Your task to perform on an android device: uninstall "File Manager" Image 0: 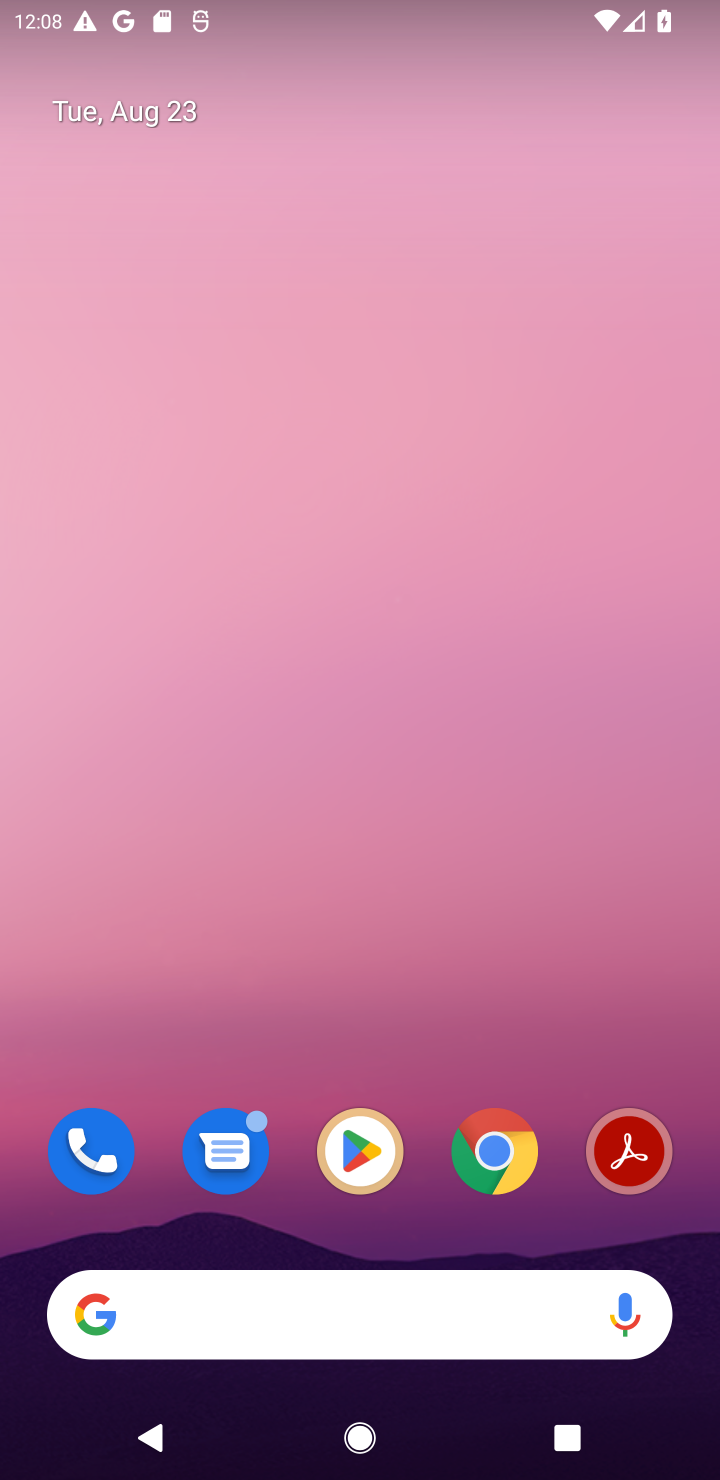
Step 0: click (365, 1143)
Your task to perform on an android device: uninstall "File Manager" Image 1: 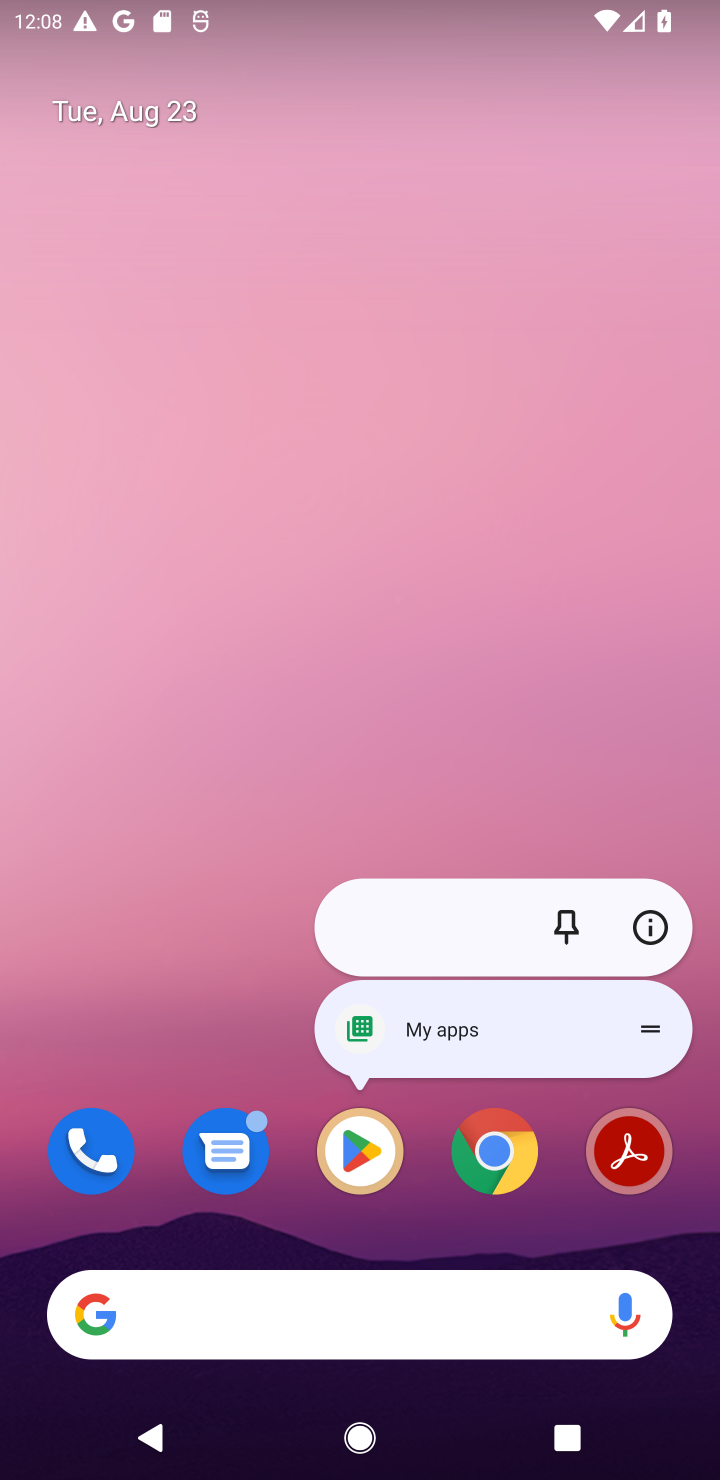
Step 1: click (365, 1143)
Your task to perform on an android device: uninstall "File Manager" Image 2: 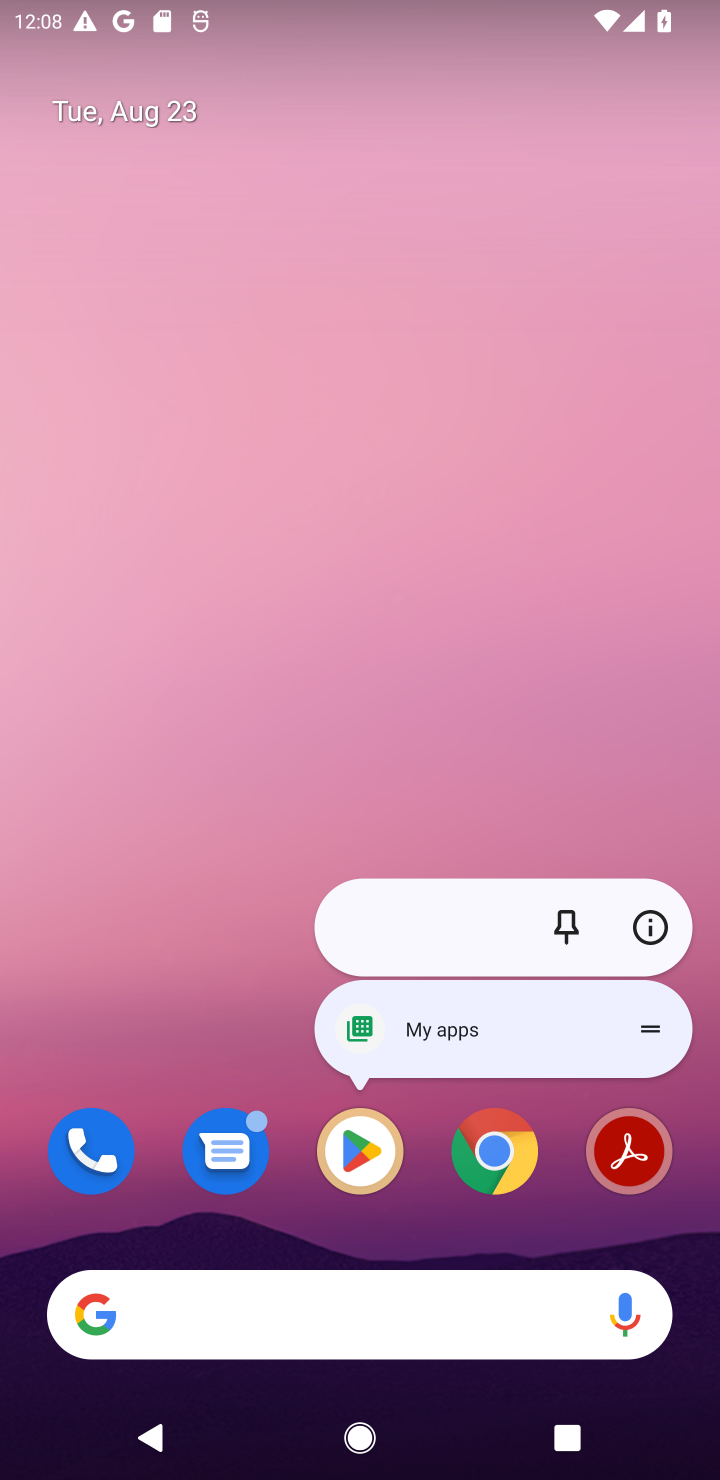
Step 2: click (359, 1168)
Your task to perform on an android device: uninstall "File Manager" Image 3: 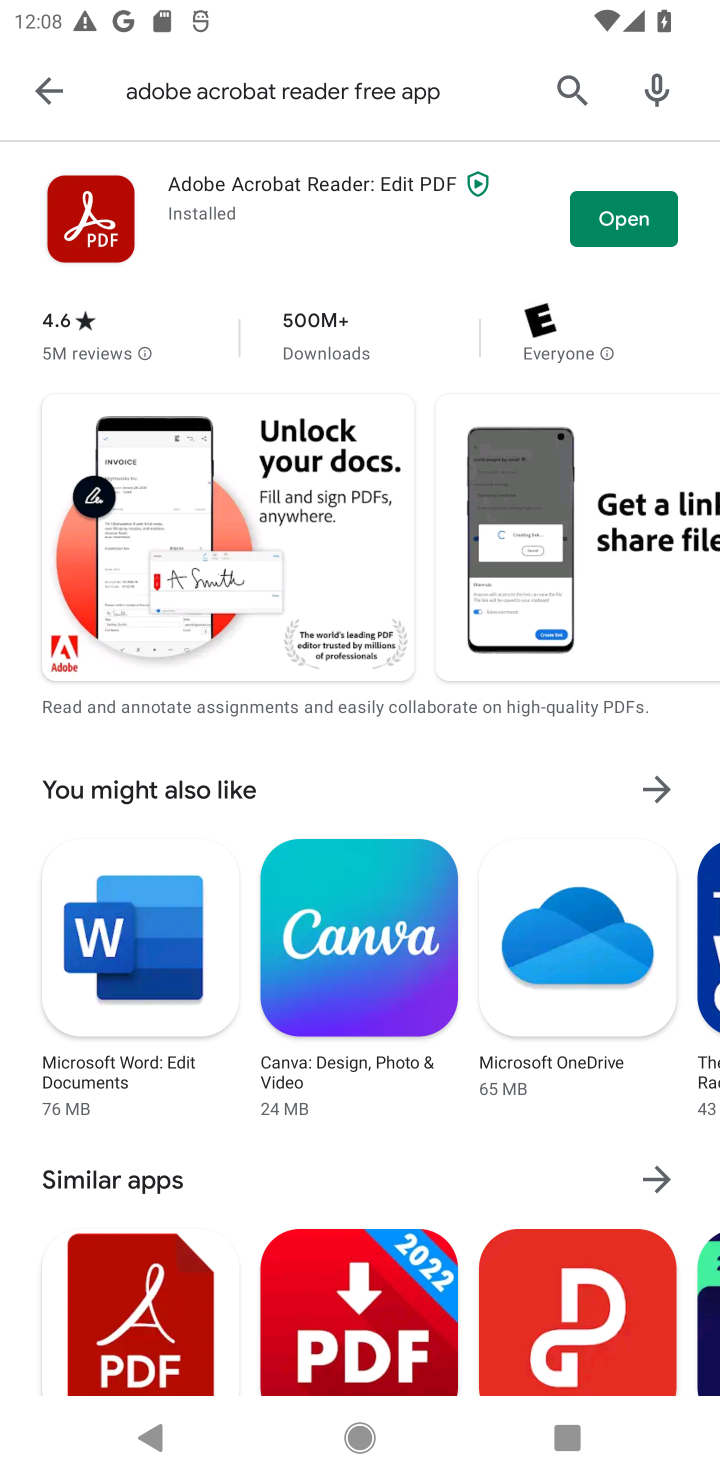
Step 3: click (577, 84)
Your task to perform on an android device: uninstall "File Manager" Image 4: 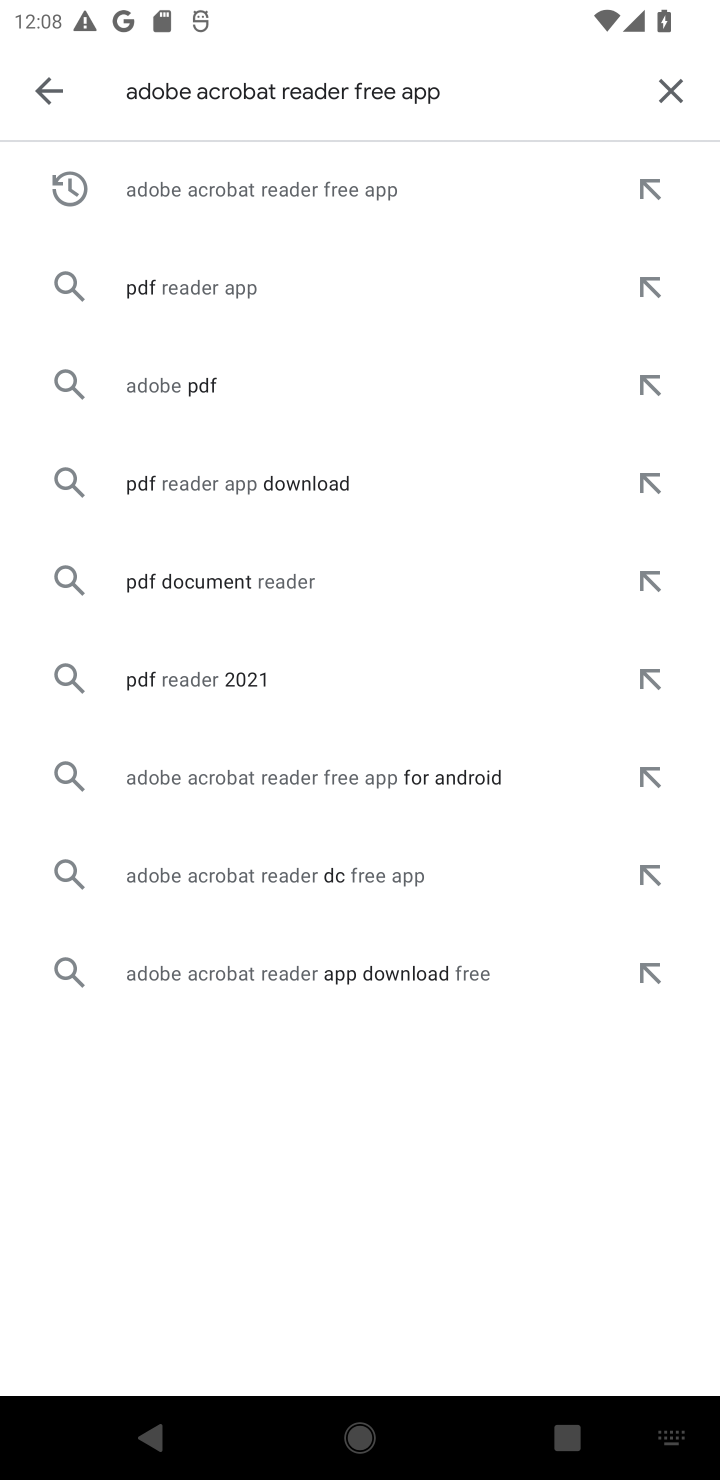
Step 4: click (675, 78)
Your task to perform on an android device: uninstall "File Manager" Image 5: 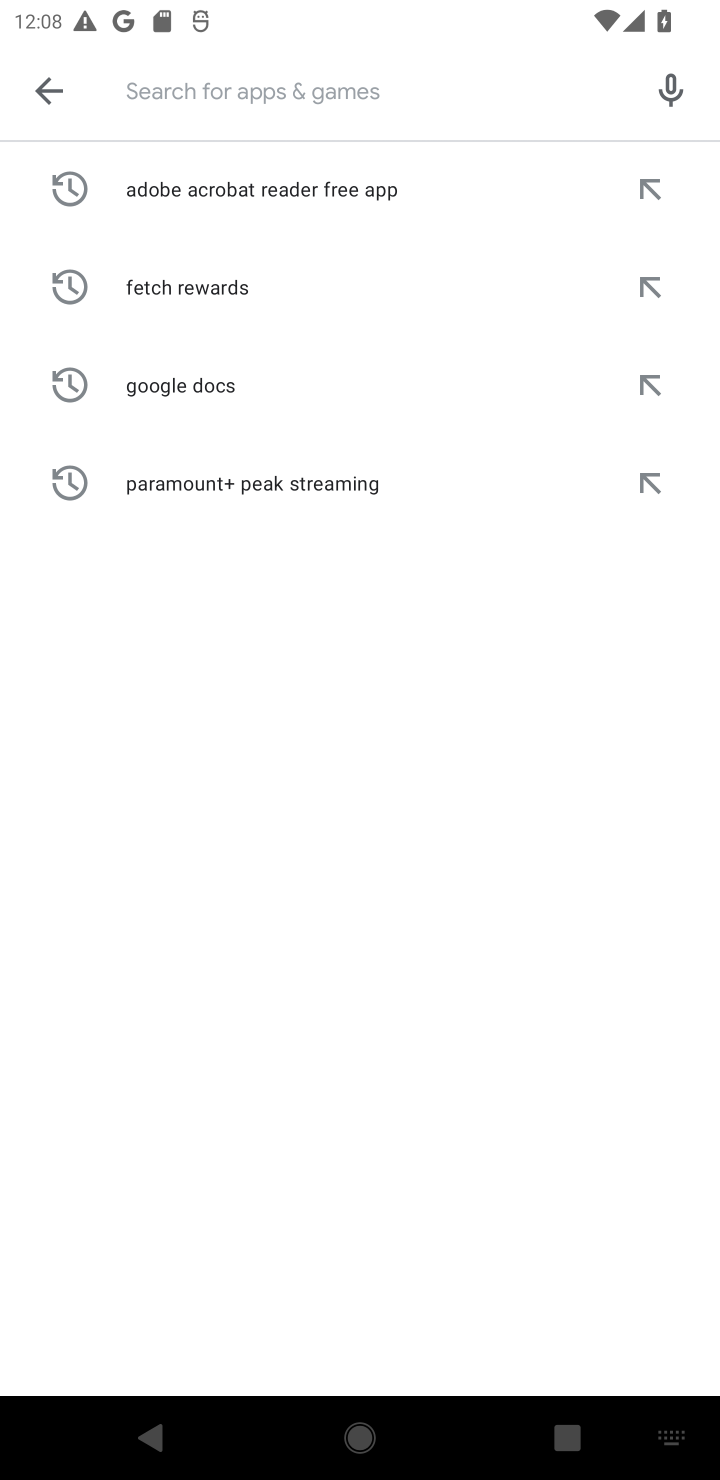
Step 5: type "File Manager"
Your task to perform on an android device: uninstall "File Manager" Image 6: 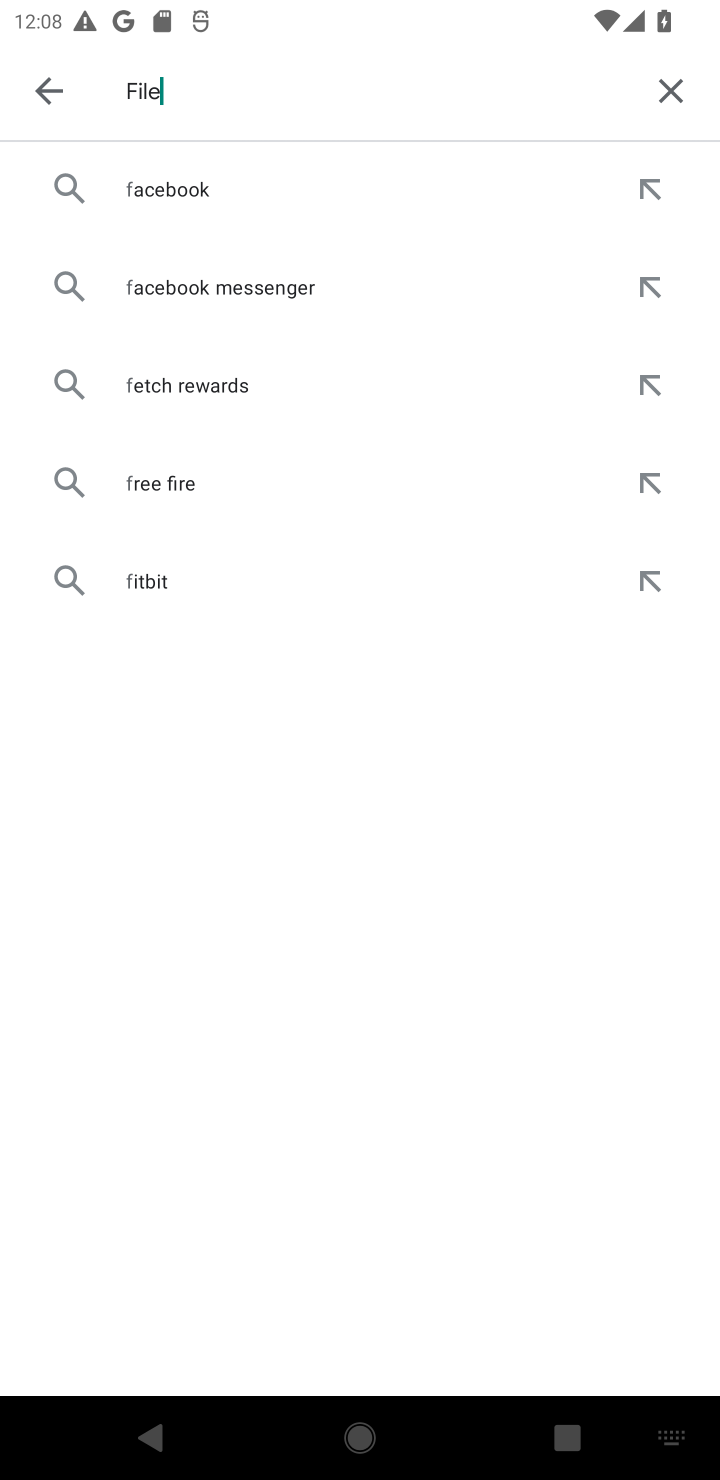
Step 6: type ""
Your task to perform on an android device: uninstall "File Manager" Image 7: 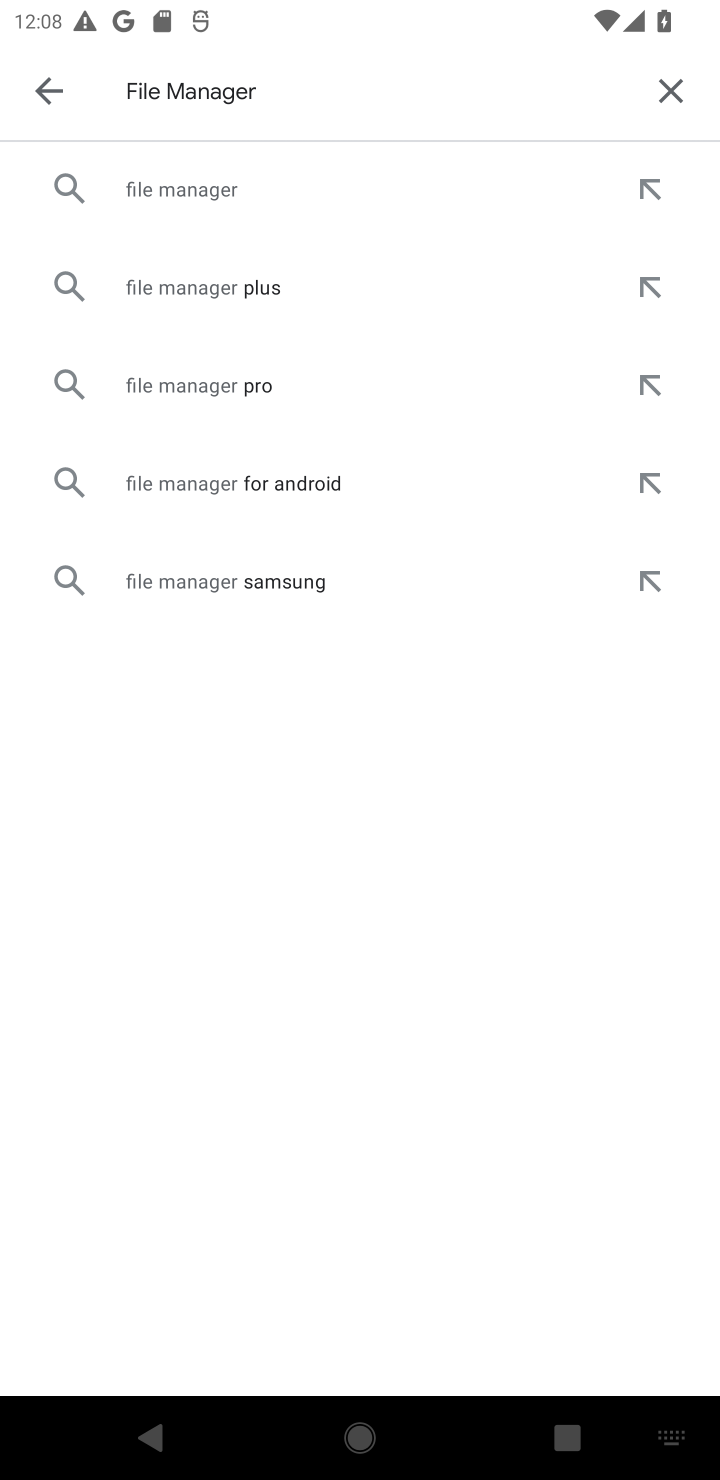
Step 7: click (271, 164)
Your task to perform on an android device: uninstall "File Manager" Image 8: 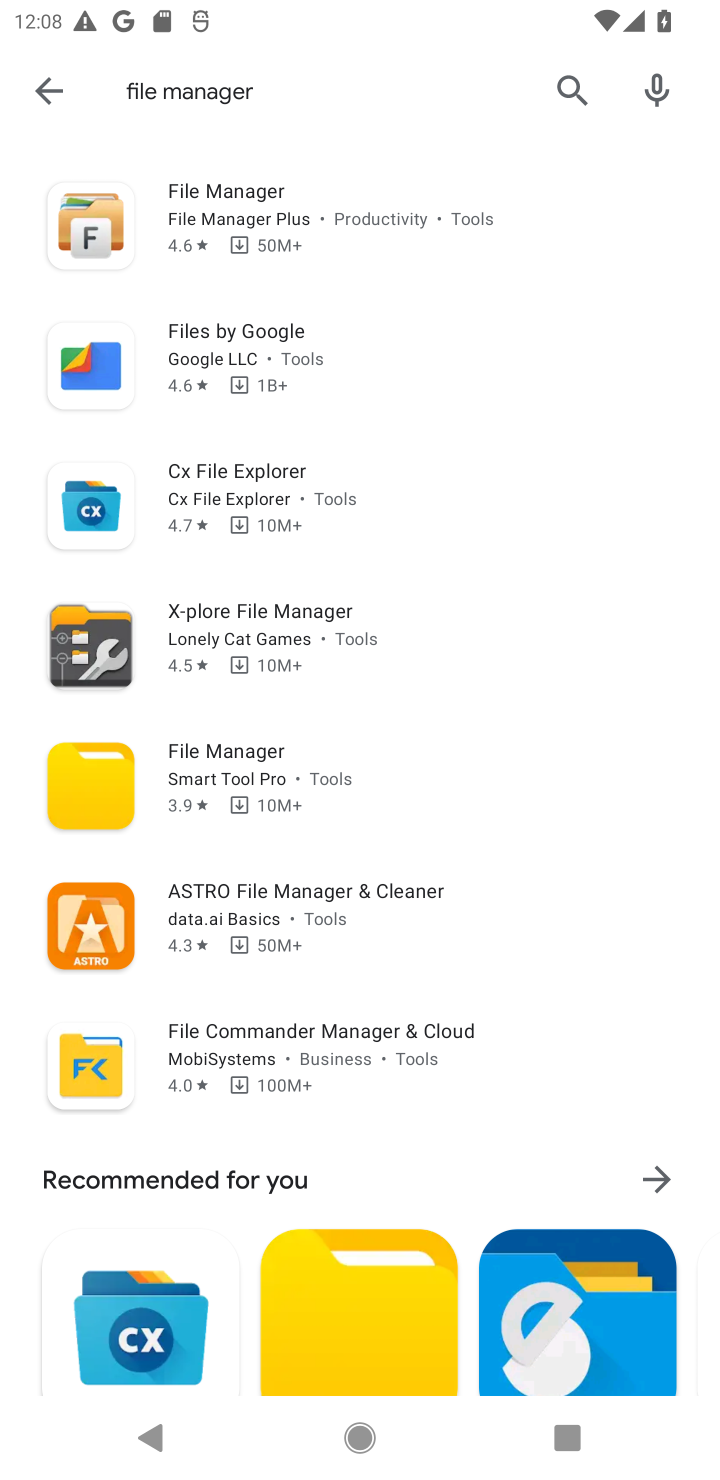
Step 8: click (324, 247)
Your task to perform on an android device: uninstall "File Manager" Image 9: 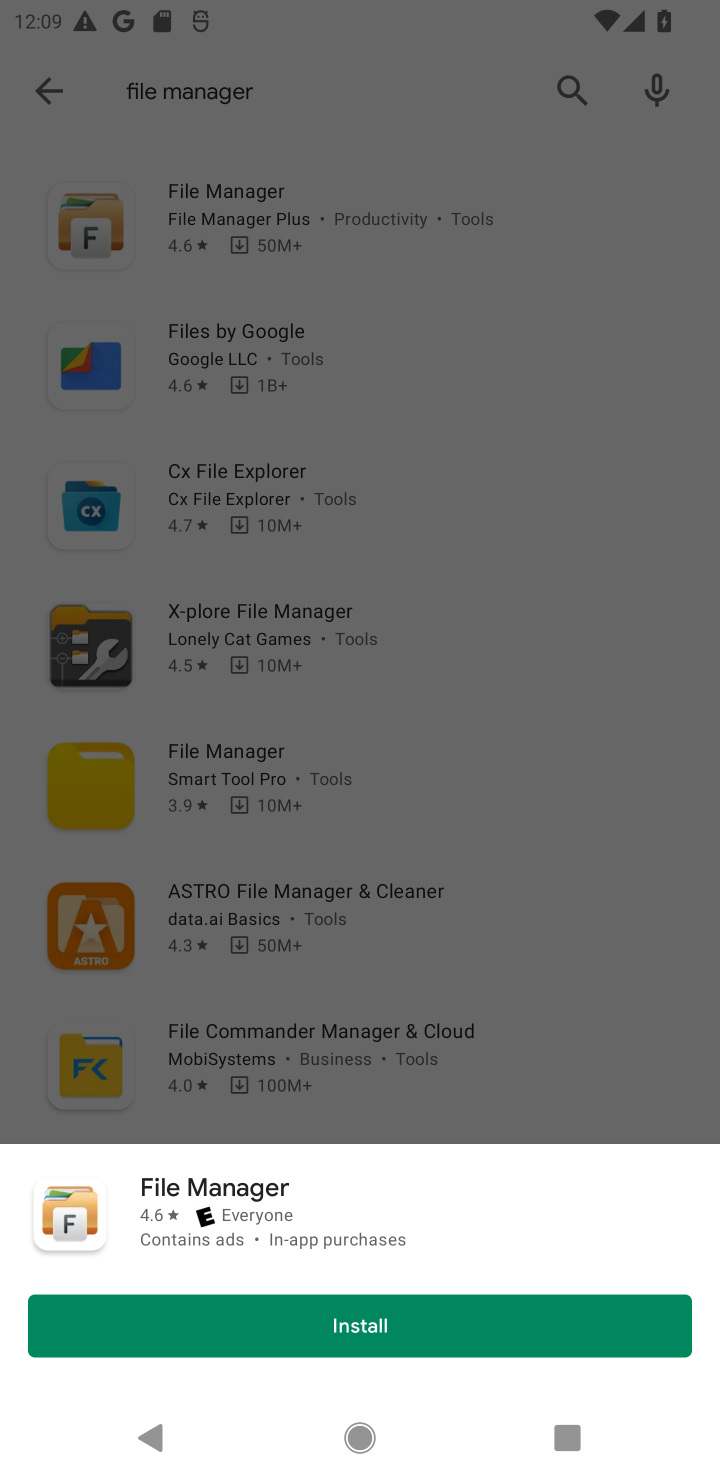
Step 9: click (419, 1304)
Your task to perform on an android device: uninstall "File Manager" Image 10: 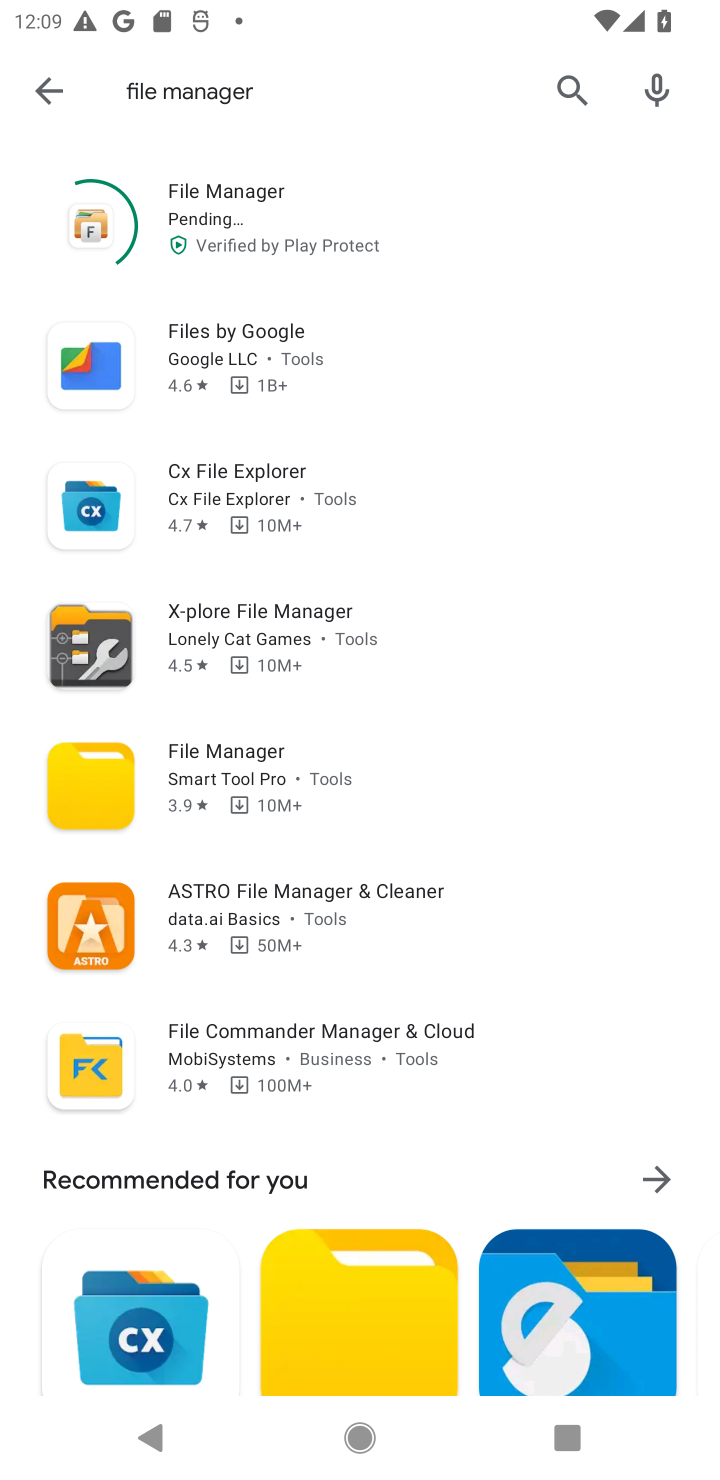
Step 10: task complete